Your task to perform on an android device: change the clock style Image 0: 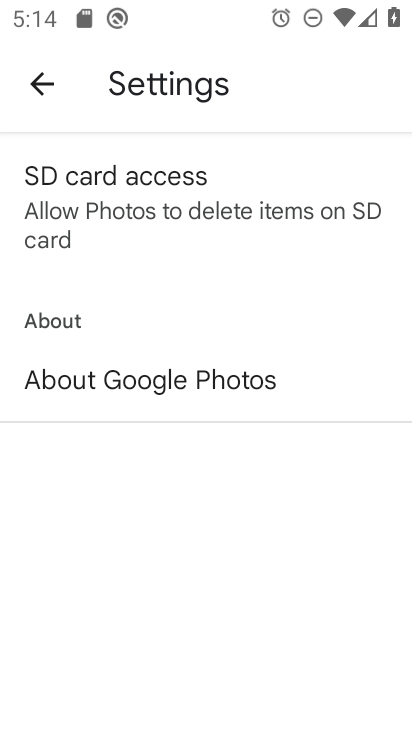
Step 0: press home button
Your task to perform on an android device: change the clock style Image 1: 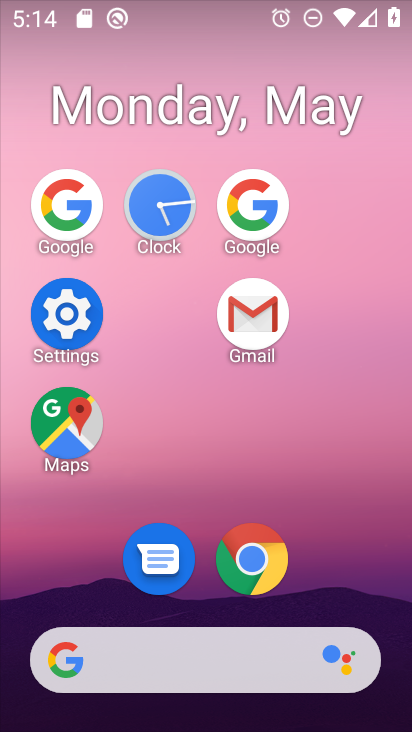
Step 1: click (179, 206)
Your task to perform on an android device: change the clock style Image 2: 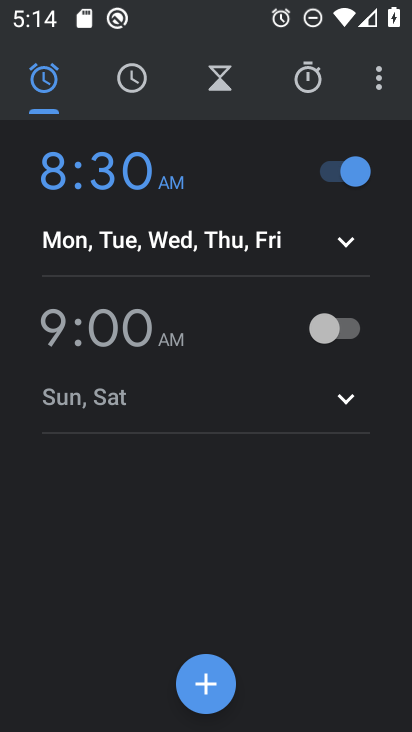
Step 2: click (386, 69)
Your task to perform on an android device: change the clock style Image 3: 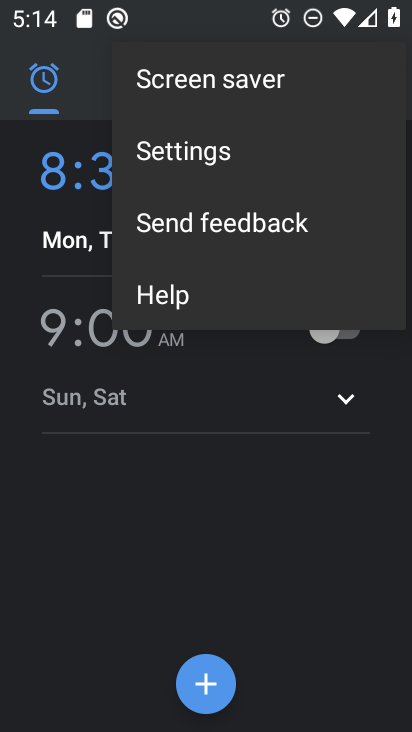
Step 3: click (274, 160)
Your task to perform on an android device: change the clock style Image 4: 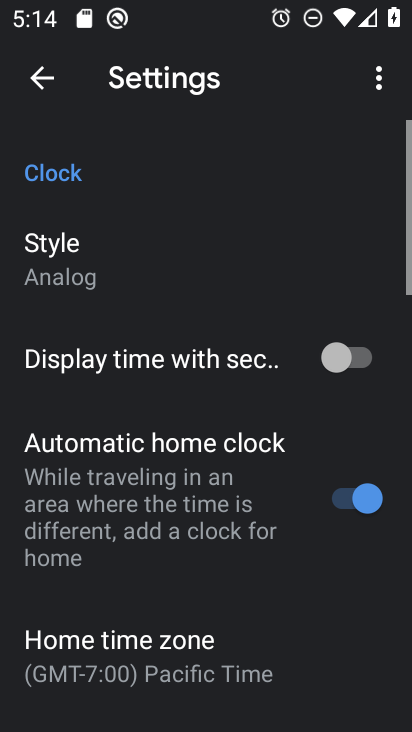
Step 4: click (72, 250)
Your task to perform on an android device: change the clock style Image 5: 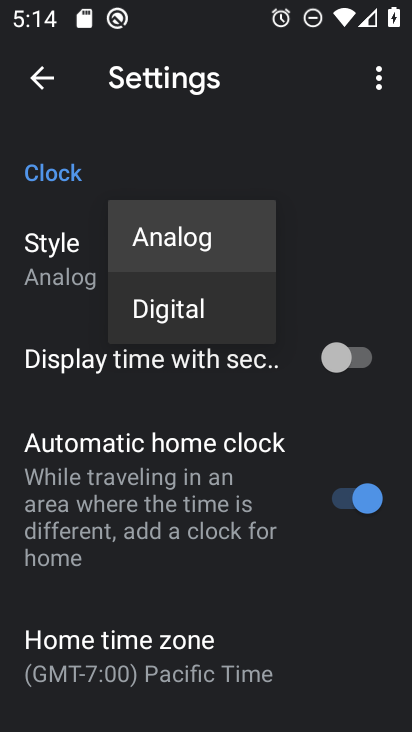
Step 5: click (200, 300)
Your task to perform on an android device: change the clock style Image 6: 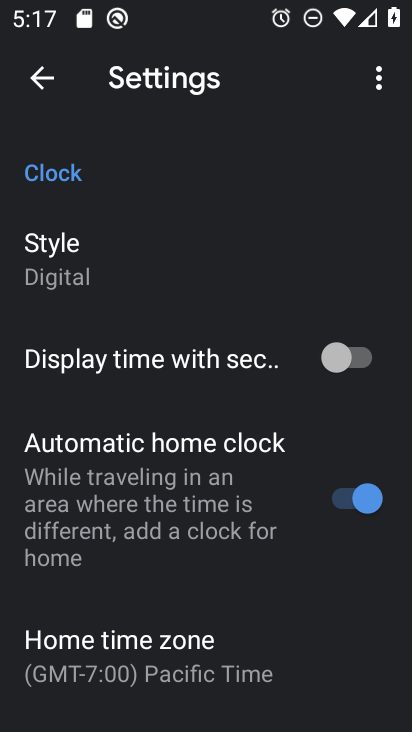
Step 6: task complete